Your task to perform on an android device: turn on sleep mode Image 0: 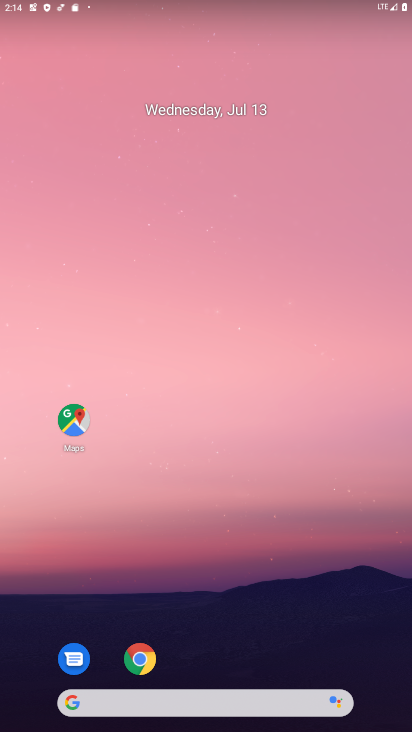
Step 0: drag from (393, 644) to (311, 198)
Your task to perform on an android device: turn on sleep mode Image 1: 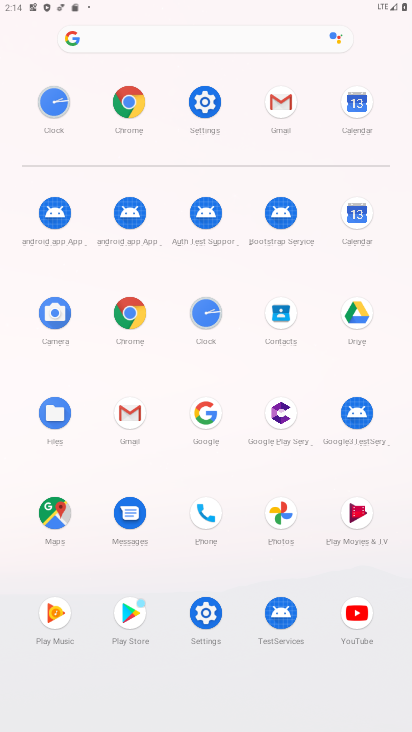
Step 1: click (207, 613)
Your task to perform on an android device: turn on sleep mode Image 2: 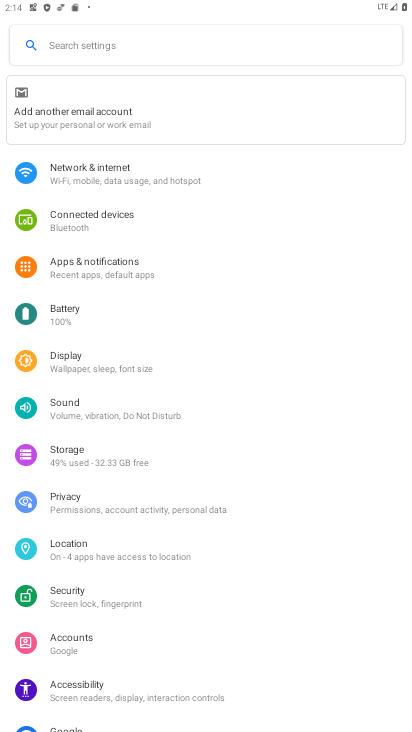
Step 2: click (93, 361)
Your task to perform on an android device: turn on sleep mode Image 3: 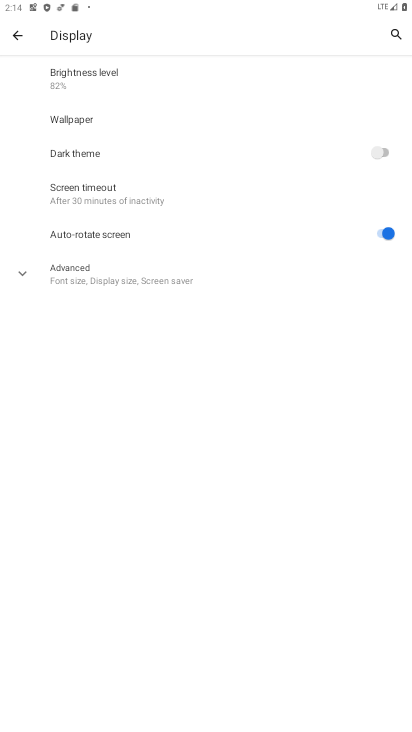
Step 3: click (24, 273)
Your task to perform on an android device: turn on sleep mode Image 4: 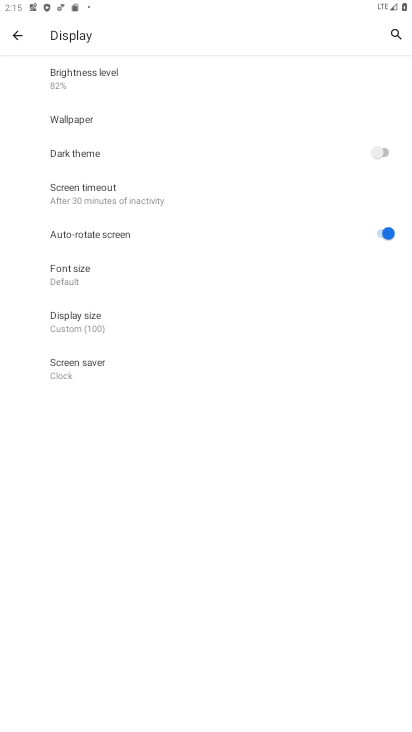
Step 4: task complete